Your task to perform on an android device: change the clock style Image 0: 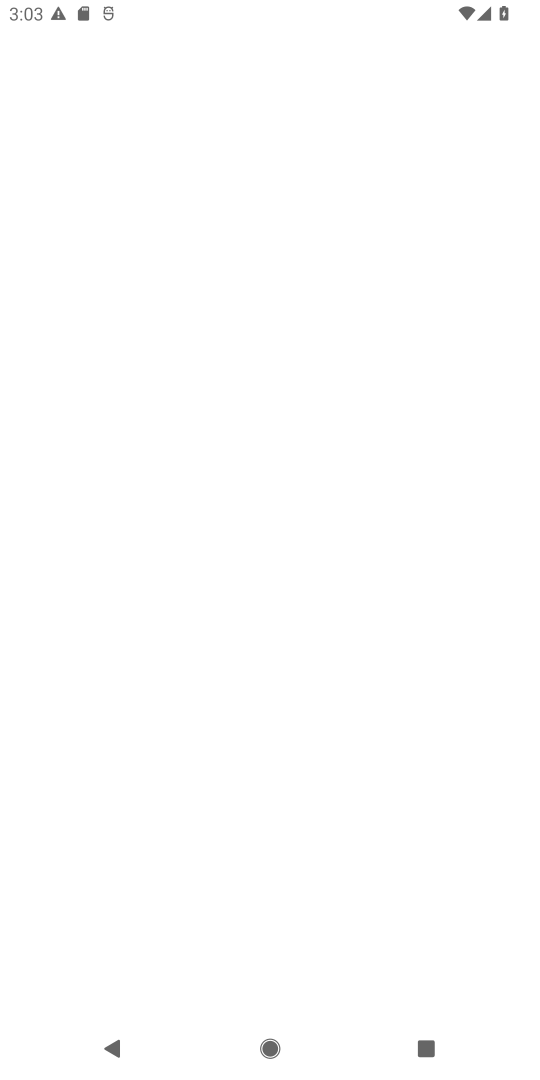
Step 0: press home button
Your task to perform on an android device: change the clock style Image 1: 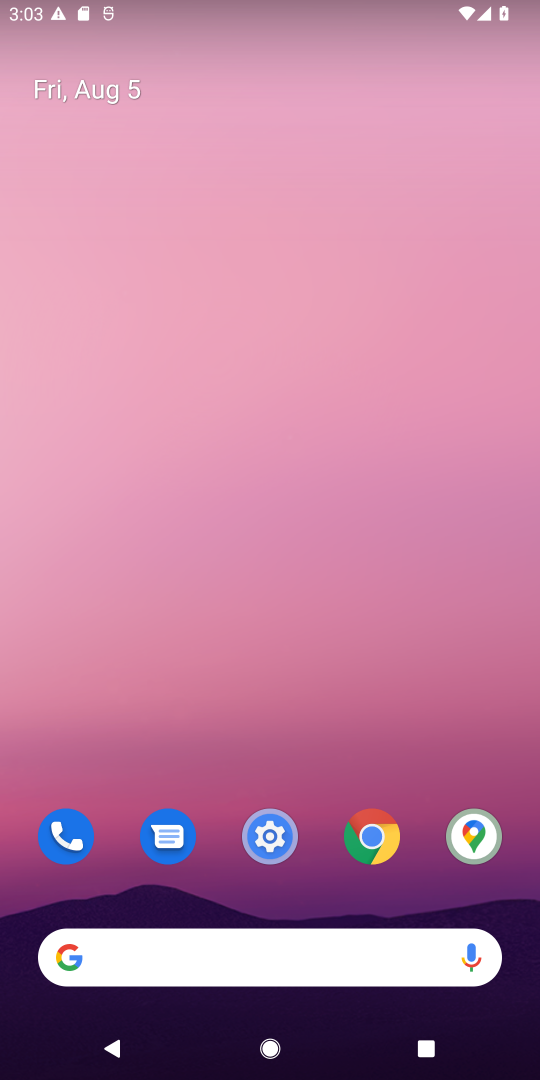
Step 1: drag from (237, 962) to (269, 122)
Your task to perform on an android device: change the clock style Image 2: 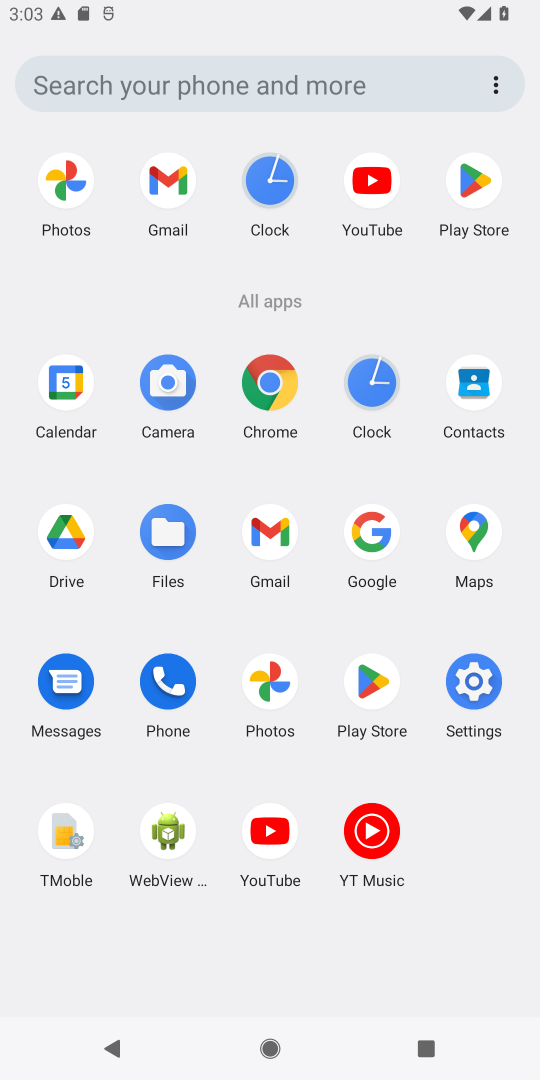
Step 2: click (370, 395)
Your task to perform on an android device: change the clock style Image 3: 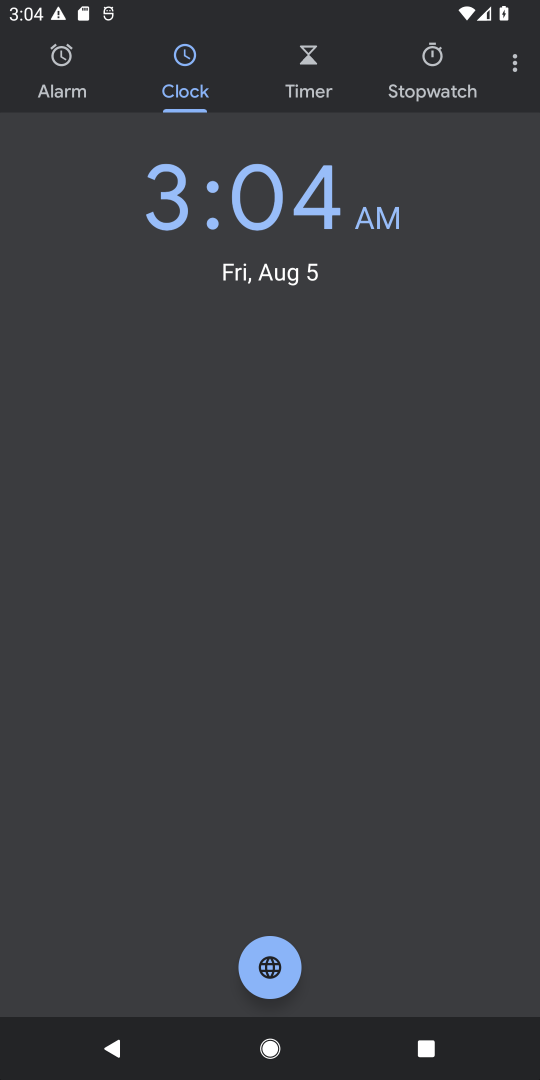
Step 3: click (523, 74)
Your task to perform on an android device: change the clock style Image 4: 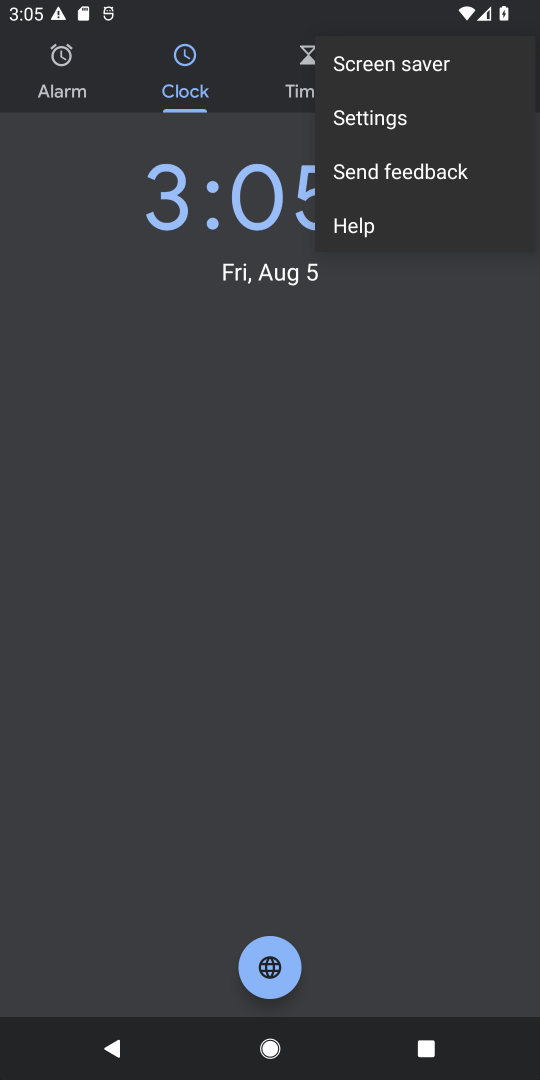
Step 4: click (386, 126)
Your task to perform on an android device: change the clock style Image 5: 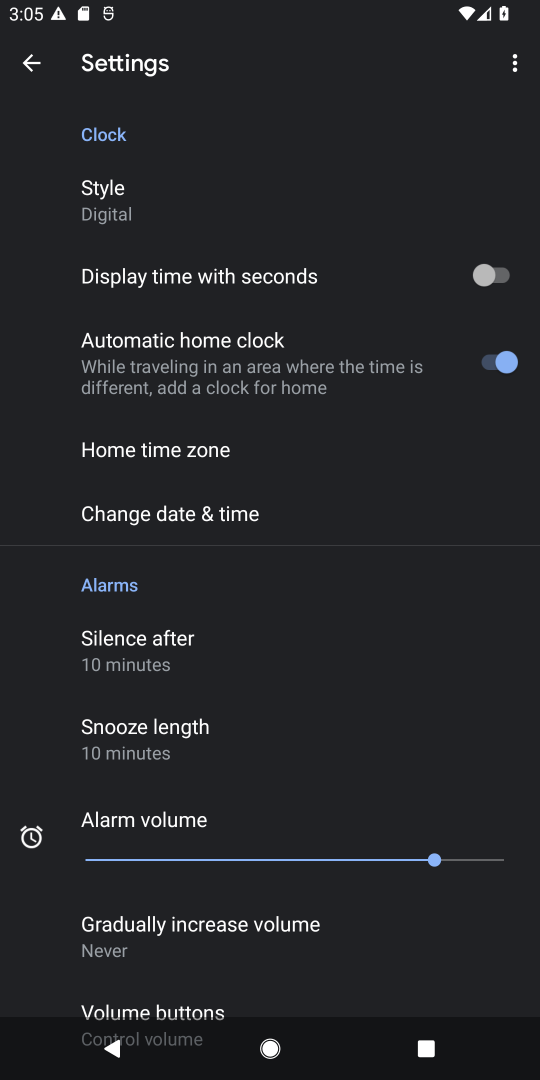
Step 5: click (106, 187)
Your task to perform on an android device: change the clock style Image 6: 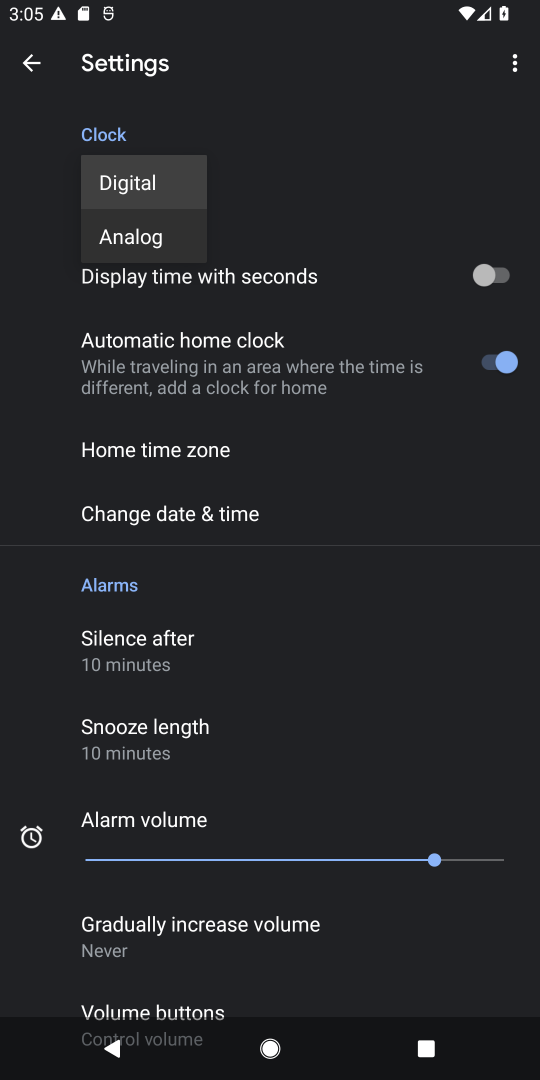
Step 6: click (156, 234)
Your task to perform on an android device: change the clock style Image 7: 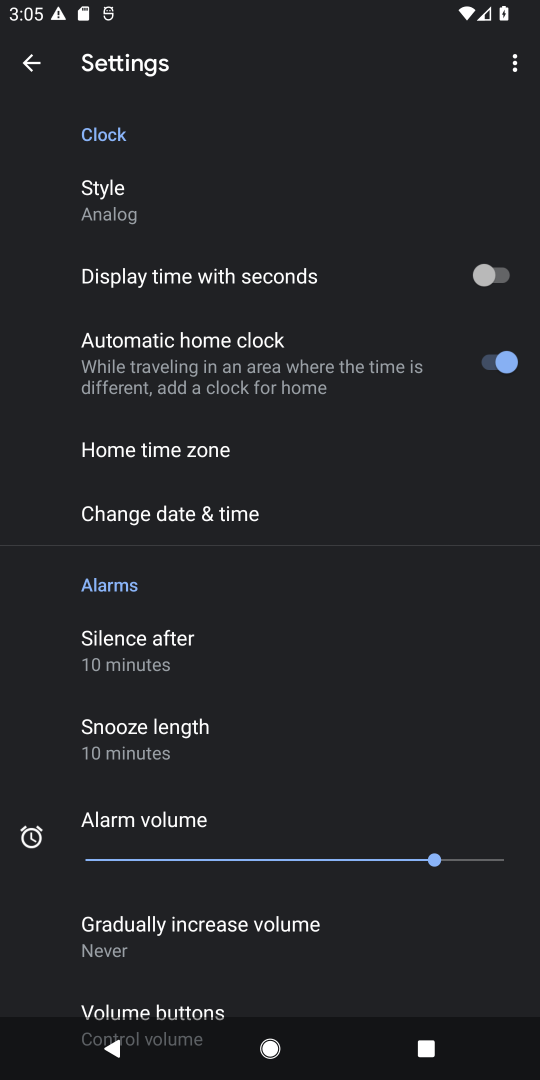
Step 7: task complete